Your task to perform on an android device: turn on the 24-hour format for clock Image 0: 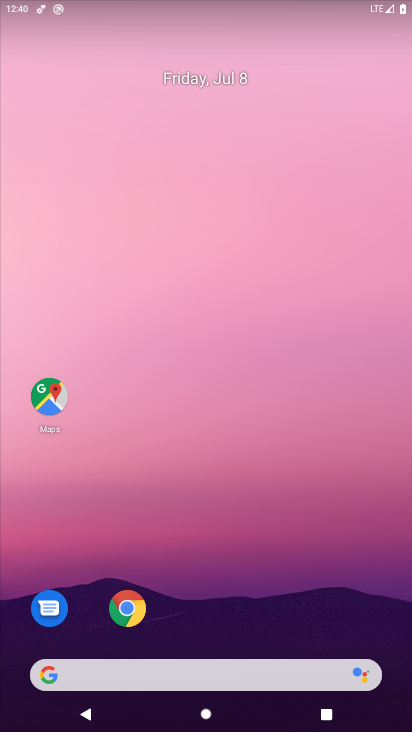
Step 0: click (291, 0)
Your task to perform on an android device: turn on the 24-hour format for clock Image 1: 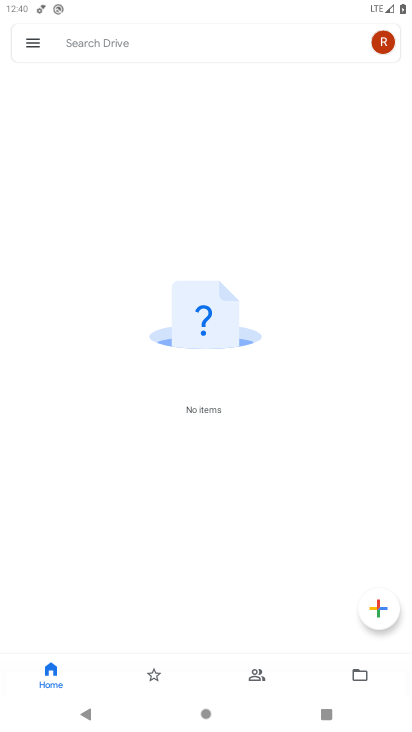
Step 1: press home button
Your task to perform on an android device: turn on the 24-hour format for clock Image 2: 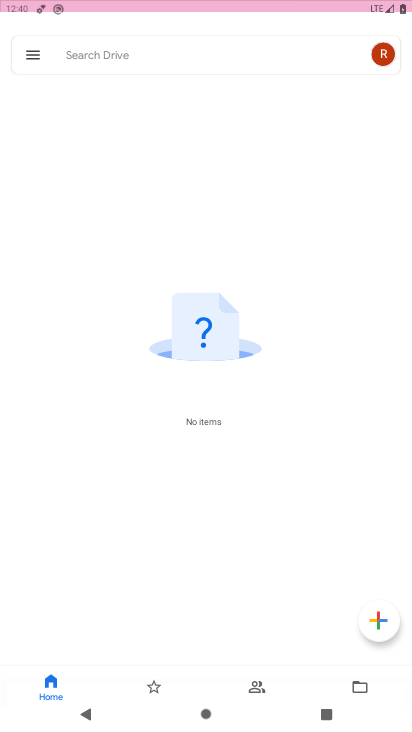
Step 2: drag from (182, 588) to (291, 2)
Your task to perform on an android device: turn on the 24-hour format for clock Image 3: 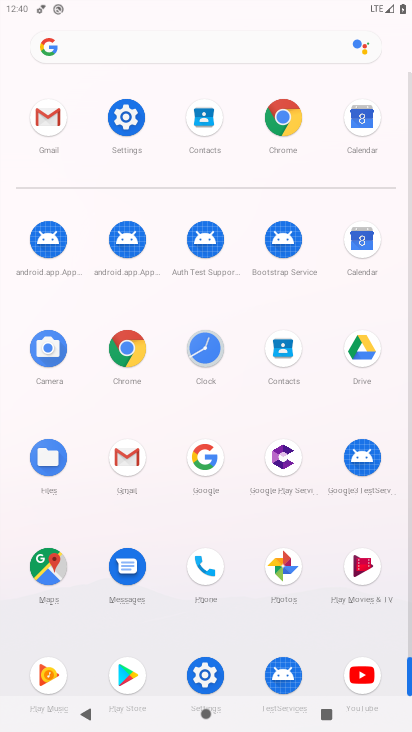
Step 3: click (196, 662)
Your task to perform on an android device: turn on the 24-hour format for clock Image 4: 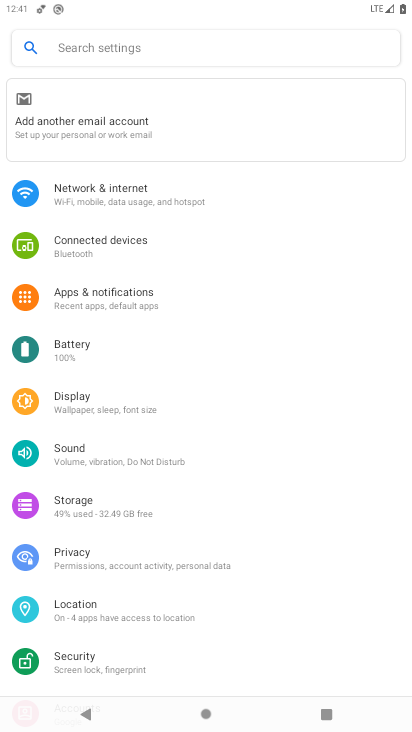
Step 4: press home button
Your task to perform on an android device: turn on the 24-hour format for clock Image 5: 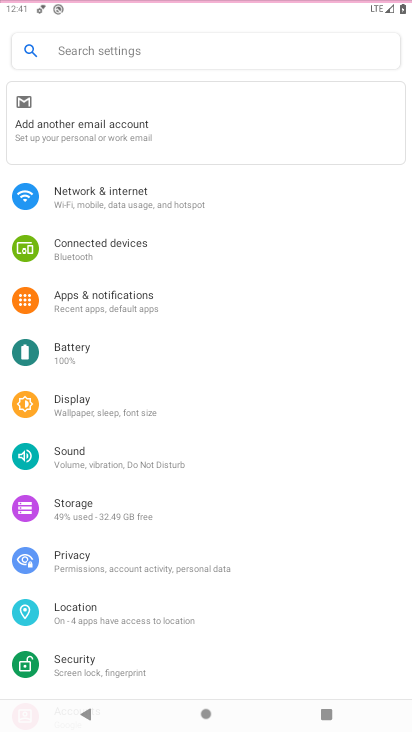
Step 5: drag from (328, 608) to (324, 6)
Your task to perform on an android device: turn on the 24-hour format for clock Image 6: 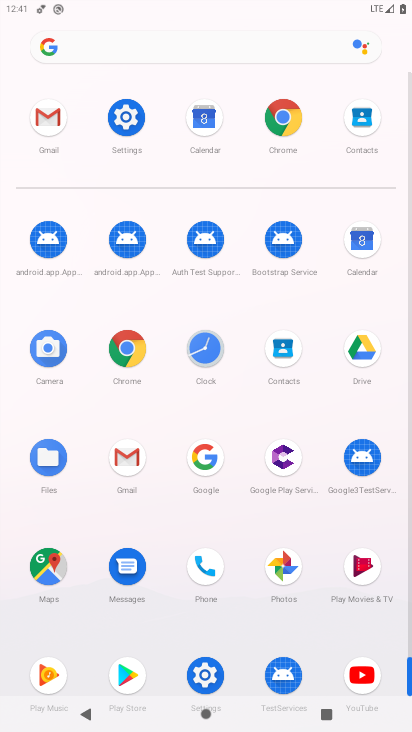
Step 6: click (193, 359)
Your task to perform on an android device: turn on the 24-hour format for clock Image 7: 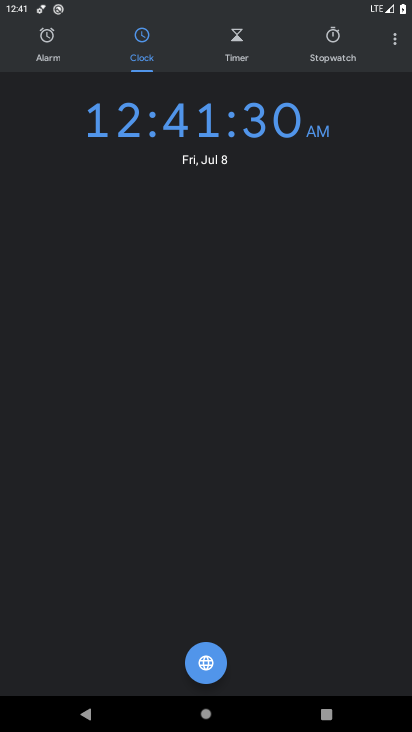
Step 7: click (399, 36)
Your task to perform on an android device: turn on the 24-hour format for clock Image 8: 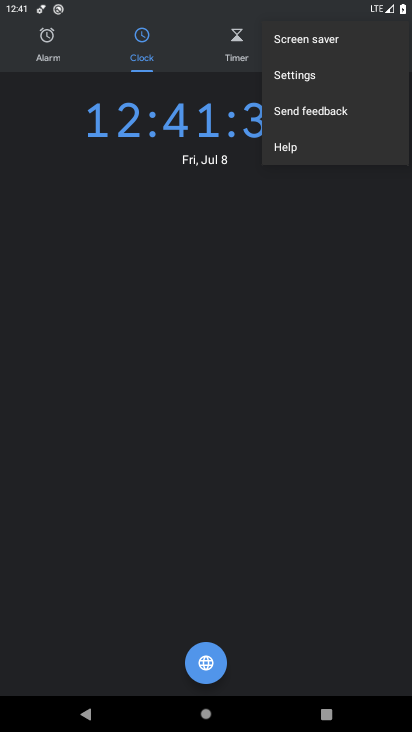
Step 8: click (321, 74)
Your task to perform on an android device: turn on the 24-hour format for clock Image 9: 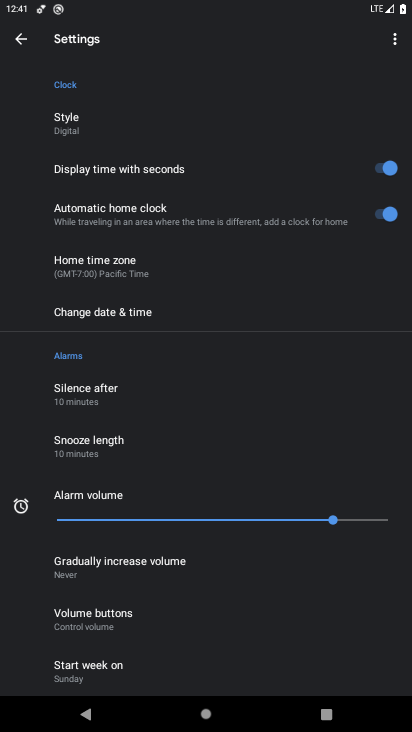
Step 9: drag from (219, 574) to (236, 651)
Your task to perform on an android device: turn on the 24-hour format for clock Image 10: 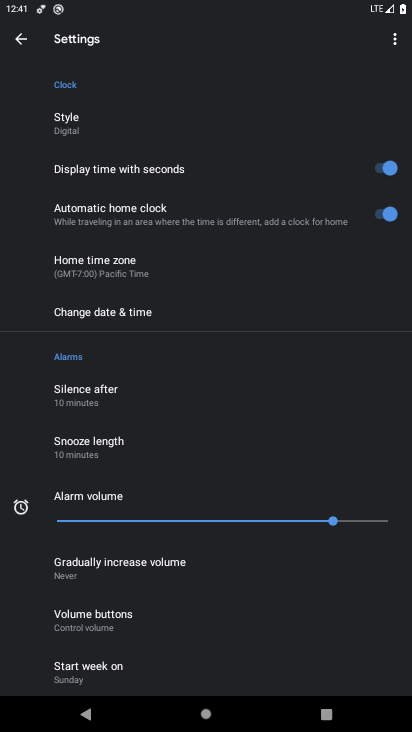
Step 10: click (90, 324)
Your task to perform on an android device: turn on the 24-hour format for clock Image 11: 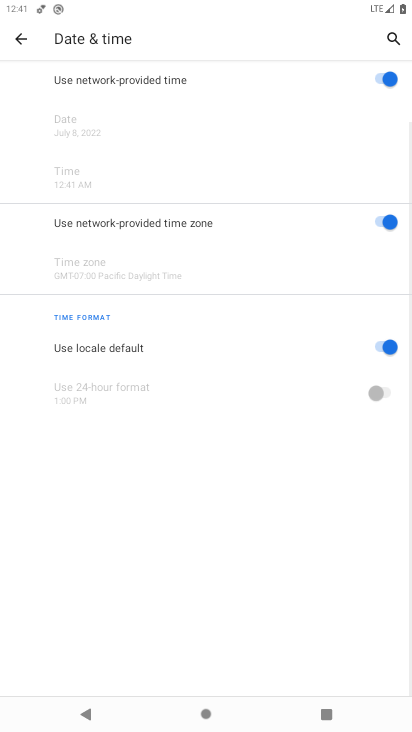
Step 11: click (135, 360)
Your task to perform on an android device: turn on the 24-hour format for clock Image 12: 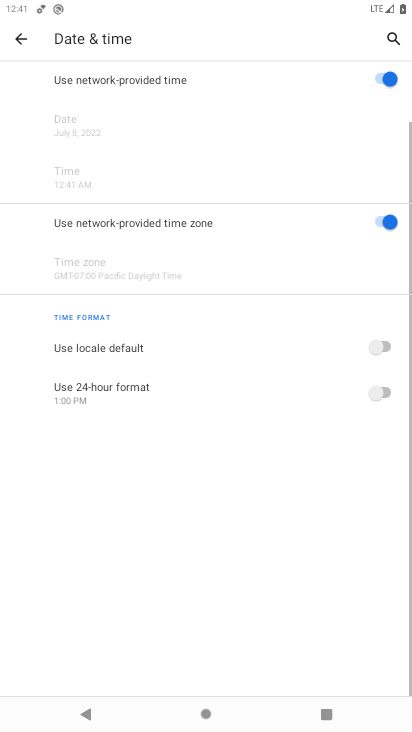
Step 12: click (135, 396)
Your task to perform on an android device: turn on the 24-hour format for clock Image 13: 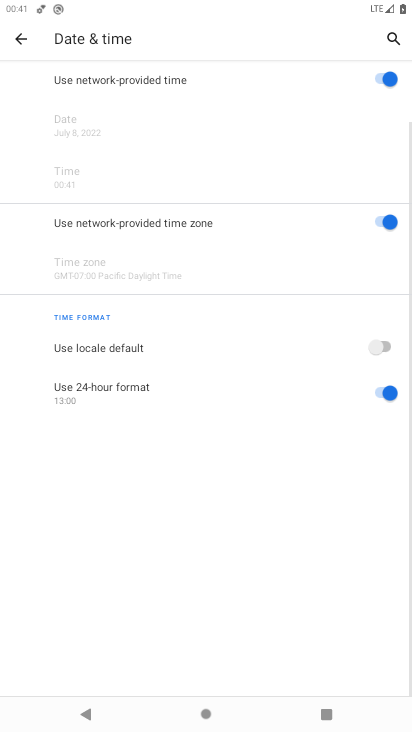
Step 13: task complete